Your task to perform on an android device: Go to Google Image 0: 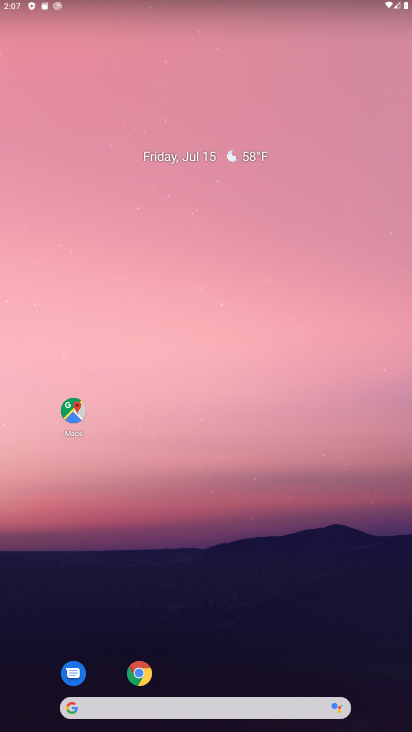
Step 0: drag from (373, 684) to (307, 206)
Your task to perform on an android device: Go to Google Image 1: 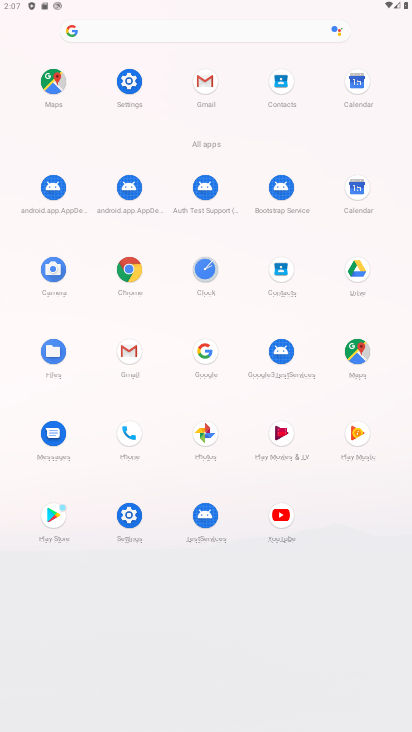
Step 1: click (199, 348)
Your task to perform on an android device: Go to Google Image 2: 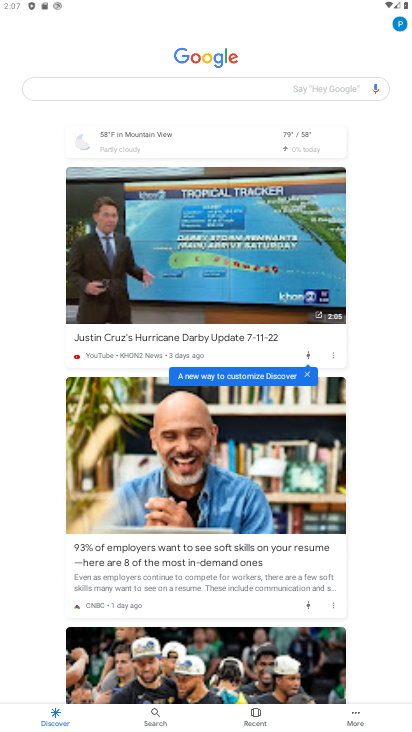
Step 2: task complete